Your task to perform on an android device: Search for pizza restaurants on Maps Image 0: 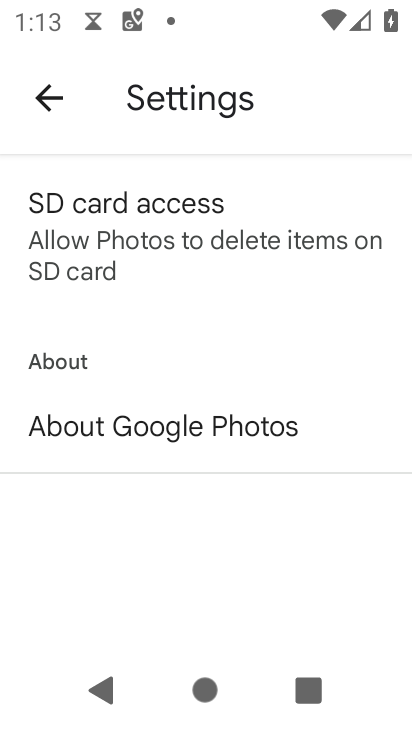
Step 0: press home button
Your task to perform on an android device: Search for pizza restaurants on Maps Image 1: 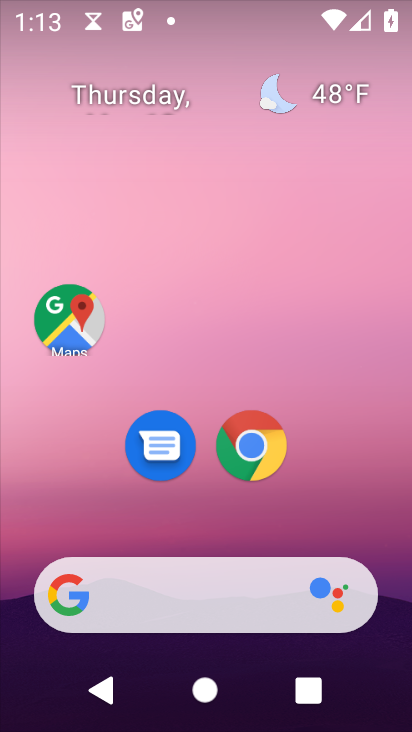
Step 1: click (82, 313)
Your task to perform on an android device: Search for pizza restaurants on Maps Image 2: 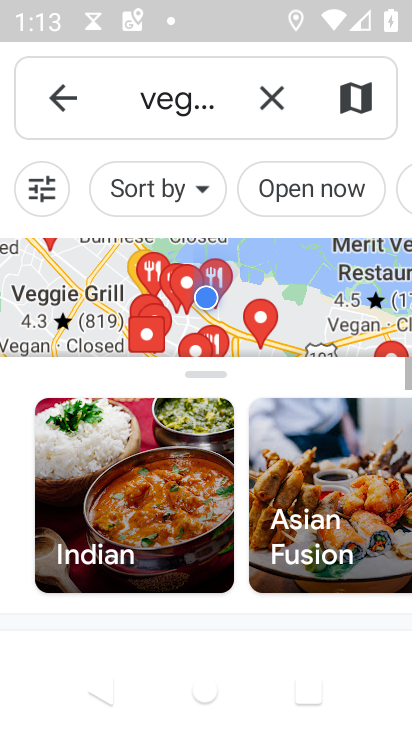
Step 2: click (281, 106)
Your task to perform on an android device: Search for pizza restaurants on Maps Image 3: 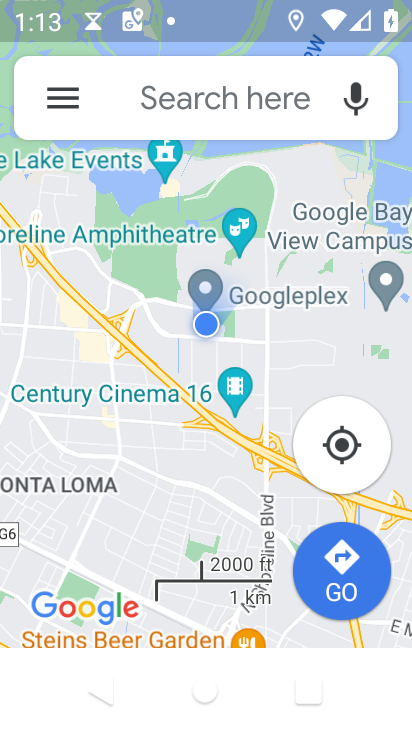
Step 3: click (173, 117)
Your task to perform on an android device: Search for pizza restaurants on Maps Image 4: 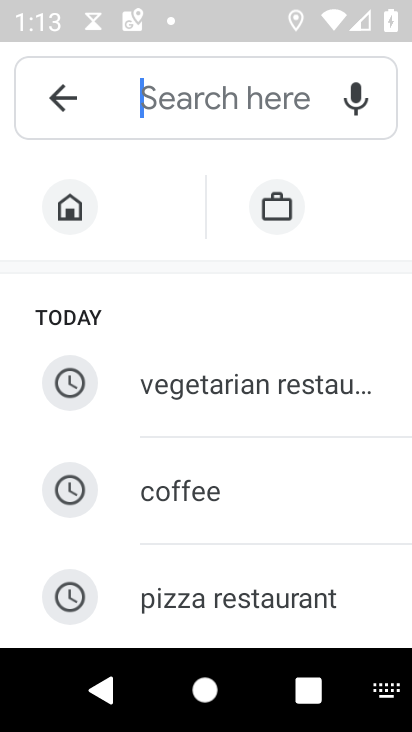
Step 4: click (277, 589)
Your task to perform on an android device: Search for pizza restaurants on Maps Image 5: 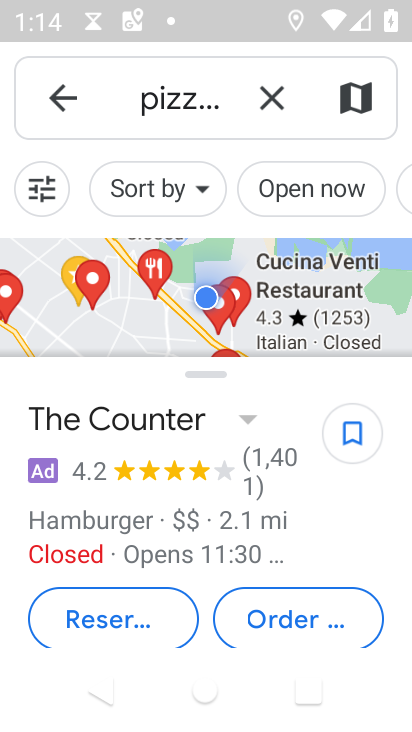
Step 5: task complete